Your task to perform on an android device: turn on improve location accuracy Image 0: 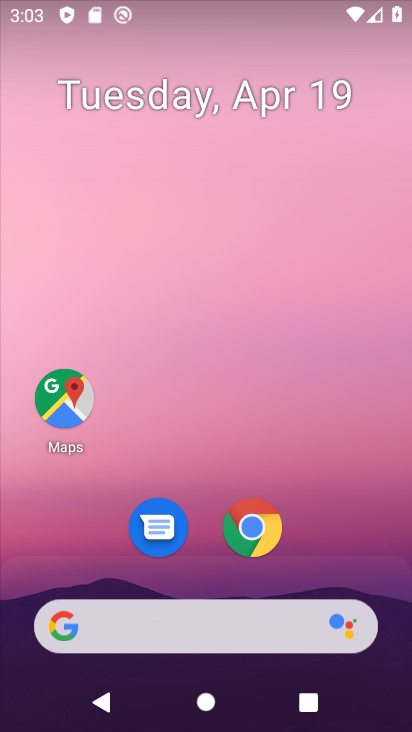
Step 0: drag from (316, 392) to (316, 283)
Your task to perform on an android device: turn on improve location accuracy Image 1: 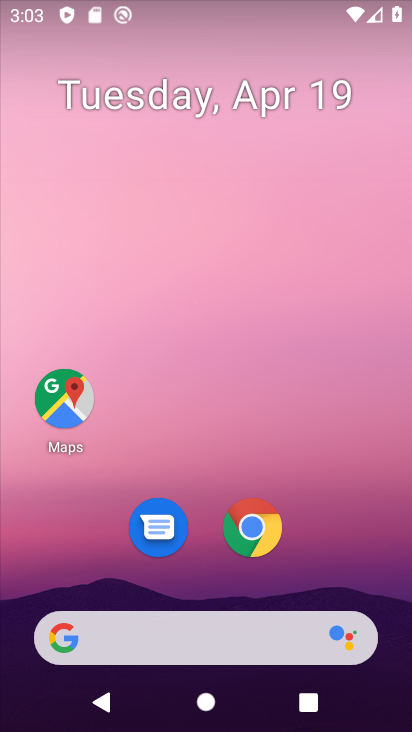
Step 1: drag from (337, 534) to (299, 247)
Your task to perform on an android device: turn on improve location accuracy Image 2: 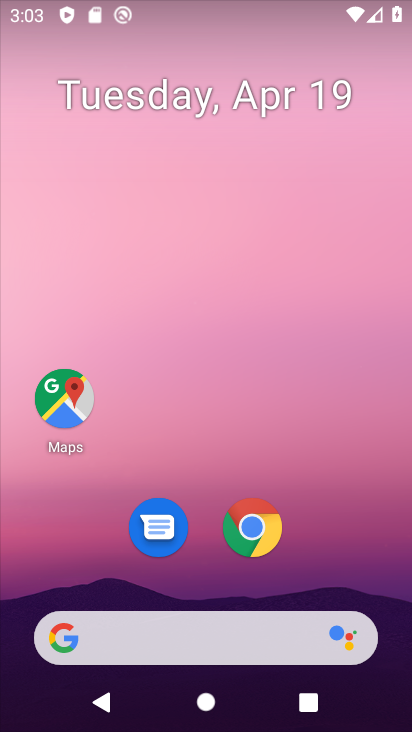
Step 2: drag from (266, 567) to (303, 189)
Your task to perform on an android device: turn on improve location accuracy Image 3: 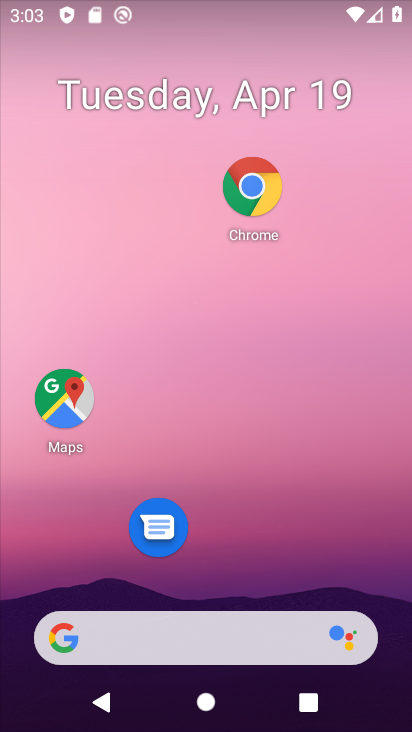
Step 3: drag from (292, 571) to (323, 57)
Your task to perform on an android device: turn on improve location accuracy Image 4: 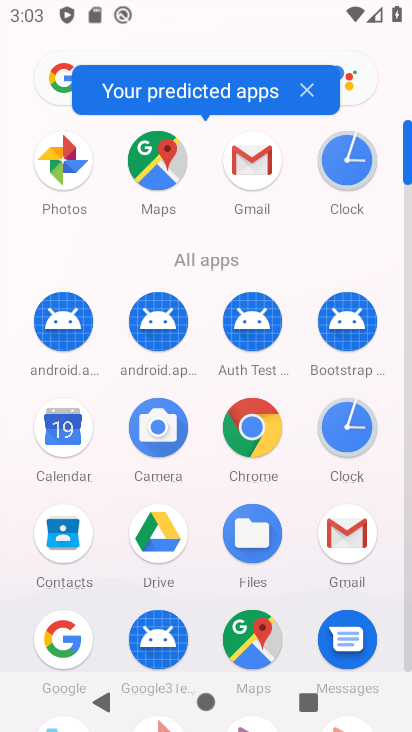
Step 4: drag from (195, 574) to (257, 194)
Your task to perform on an android device: turn on improve location accuracy Image 5: 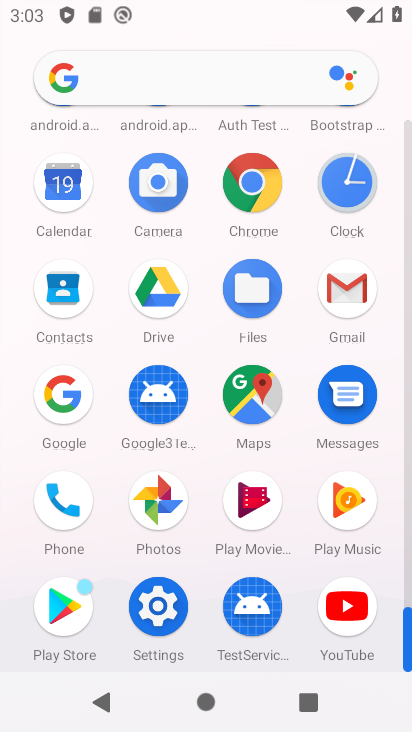
Step 5: click (160, 599)
Your task to perform on an android device: turn on improve location accuracy Image 6: 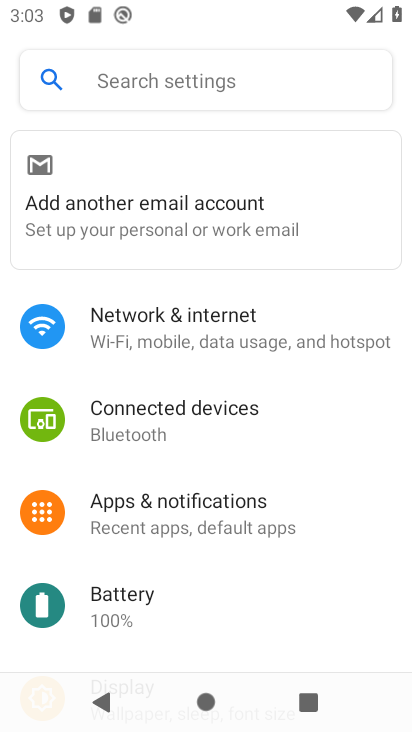
Step 6: drag from (196, 580) to (221, 211)
Your task to perform on an android device: turn on improve location accuracy Image 7: 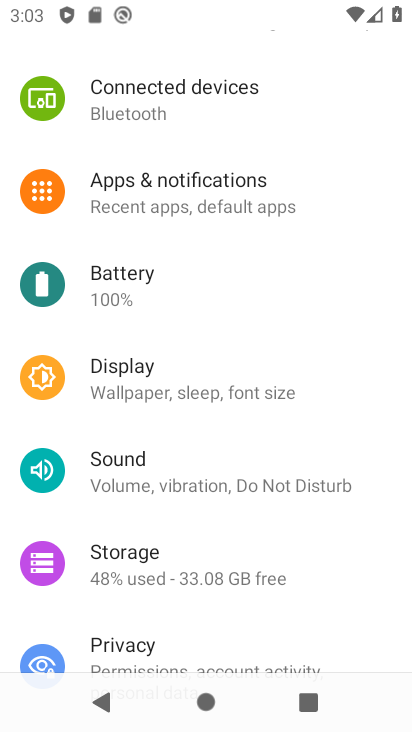
Step 7: drag from (160, 612) to (227, 164)
Your task to perform on an android device: turn on improve location accuracy Image 8: 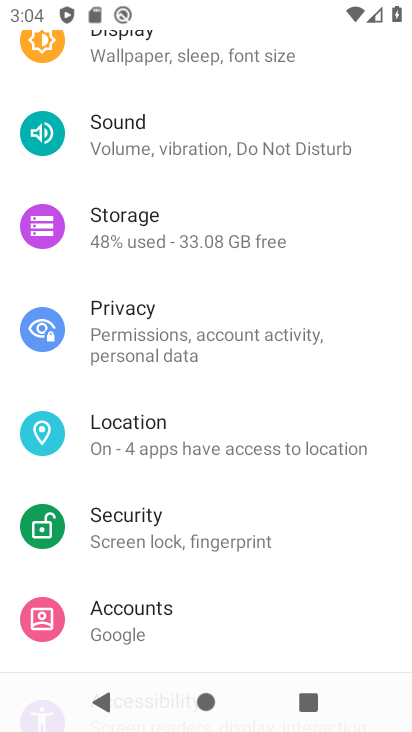
Step 8: drag from (188, 541) to (211, 281)
Your task to perform on an android device: turn on improve location accuracy Image 9: 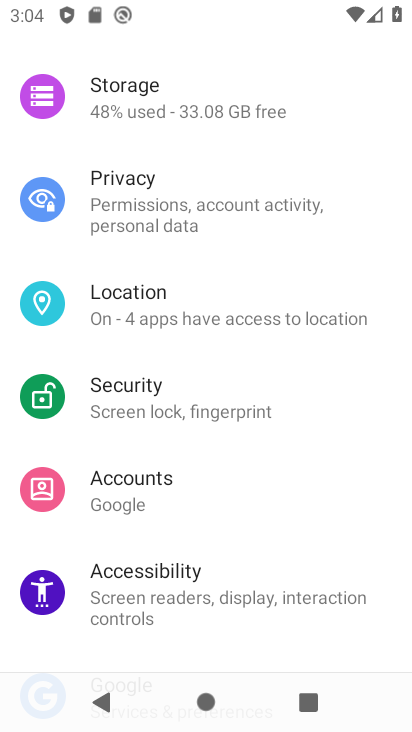
Step 9: click (167, 291)
Your task to perform on an android device: turn on improve location accuracy Image 10: 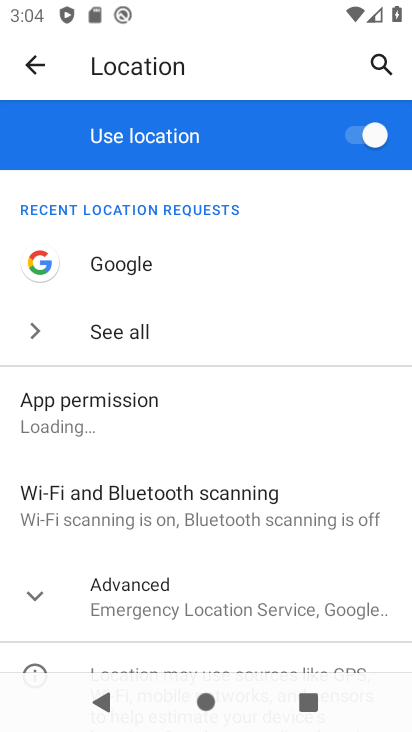
Step 10: click (229, 602)
Your task to perform on an android device: turn on improve location accuracy Image 11: 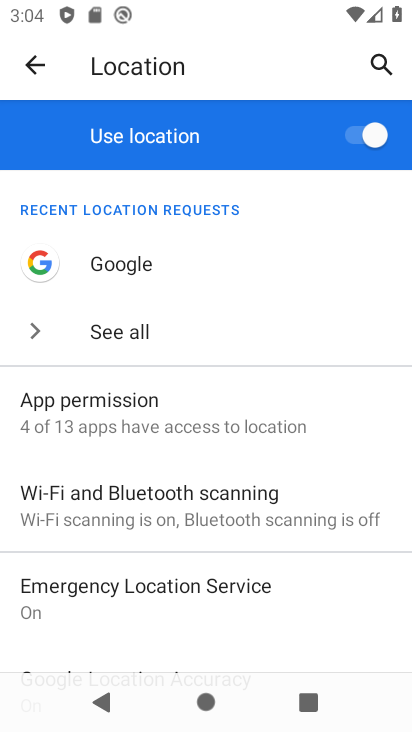
Step 11: drag from (209, 583) to (276, 310)
Your task to perform on an android device: turn on improve location accuracy Image 12: 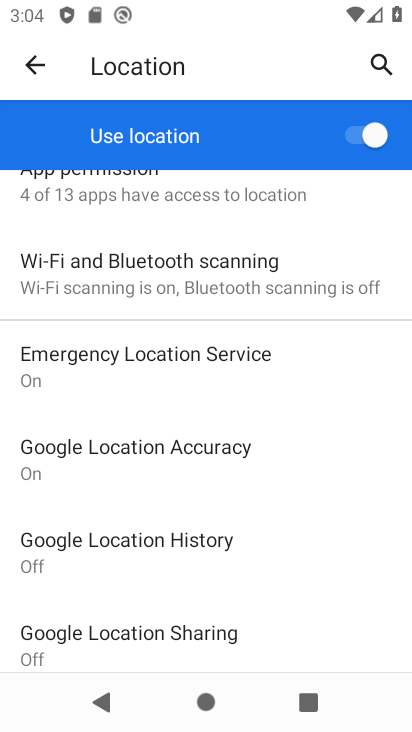
Step 12: drag from (209, 587) to (229, 458)
Your task to perform on an android device: turn on improve location accuracy Image 13: 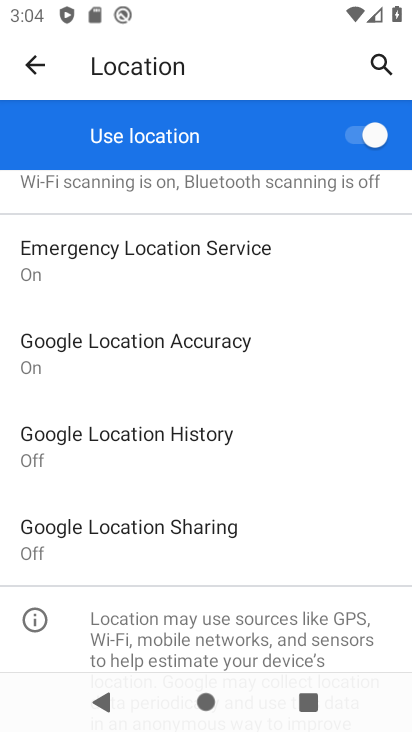
Step 13: click (232, 356)
Your task to perform on an android device: turn on improve location accuracy Image 14: 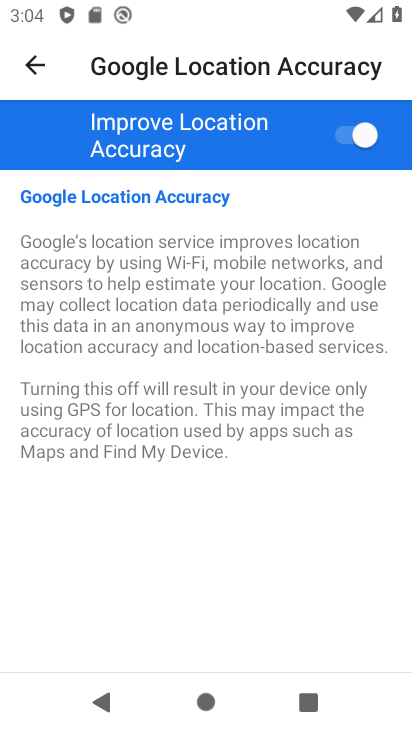
Step 14: task complete